Your task to perform on an android device: uninstall "Google Photos" Image 0: 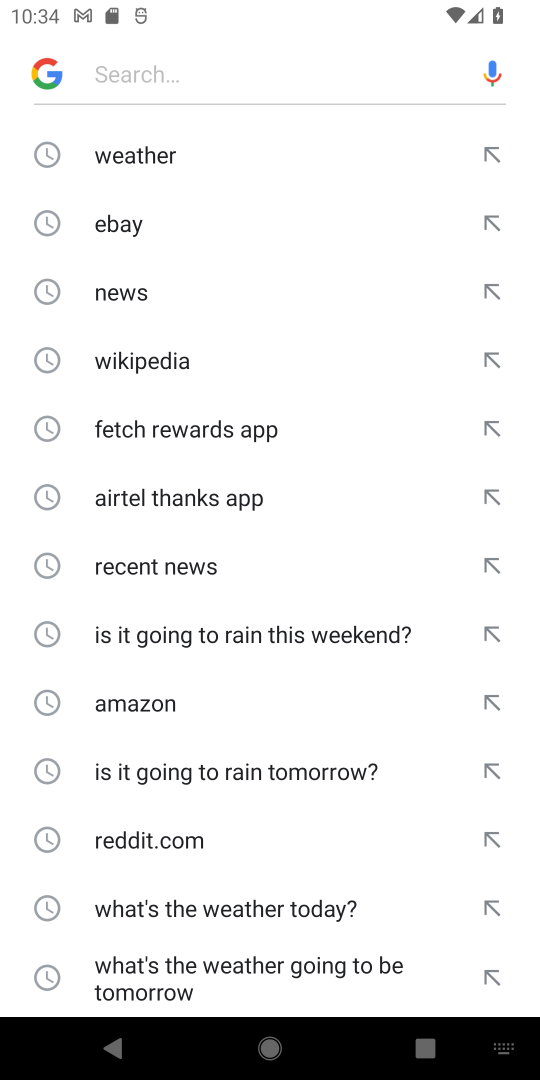
Step 0: press home button
Your task to perform on an android device: uninstall "Google Photos" Image 1: 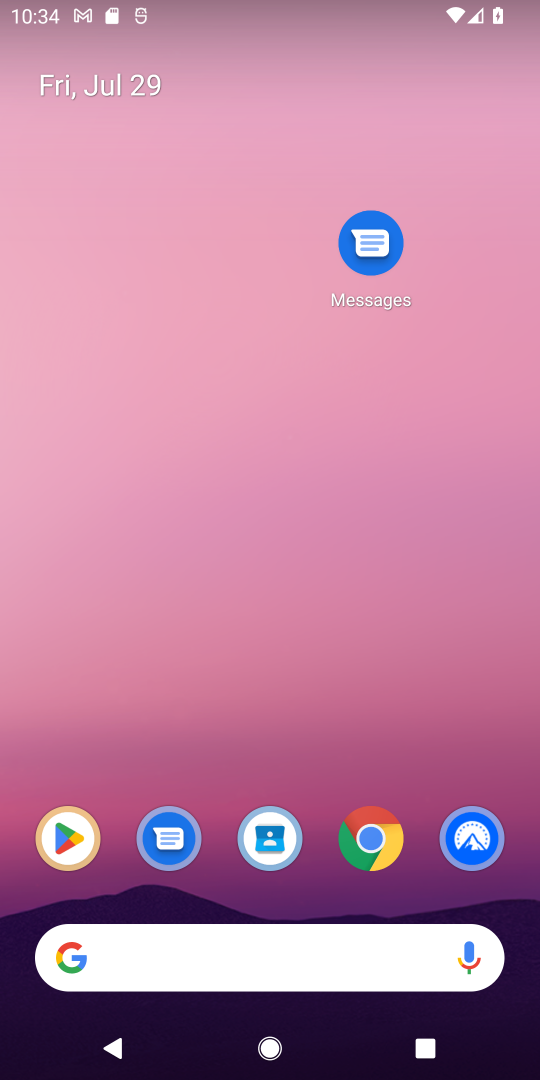
Step 1: click (73, 843)
Your task to perform on an android device: uninstall "Google Photos" Image 2: 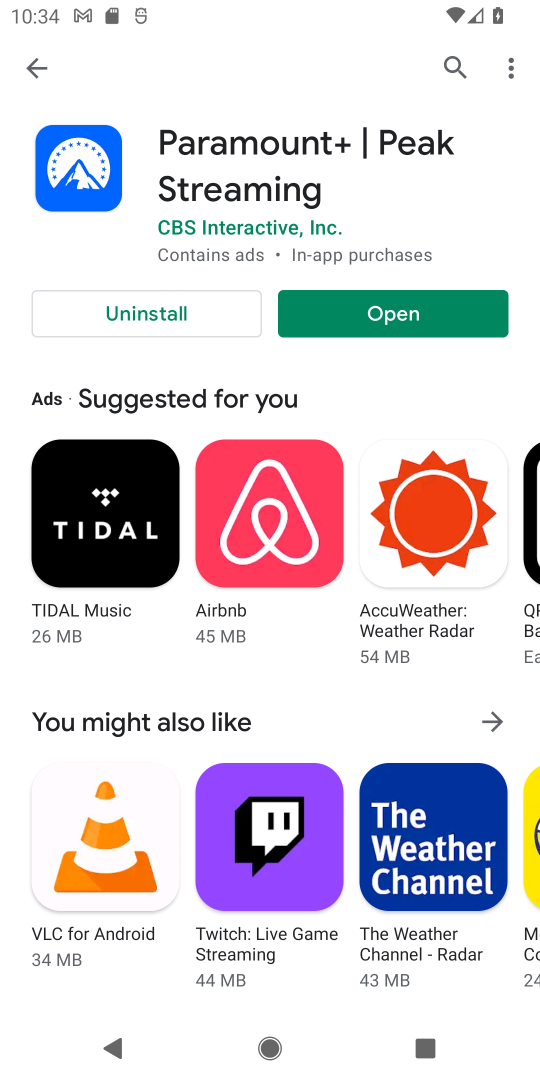
Step 2: click (28, 61)
Your task to perform on an android device: uninstall "Google Photos" Image 3: 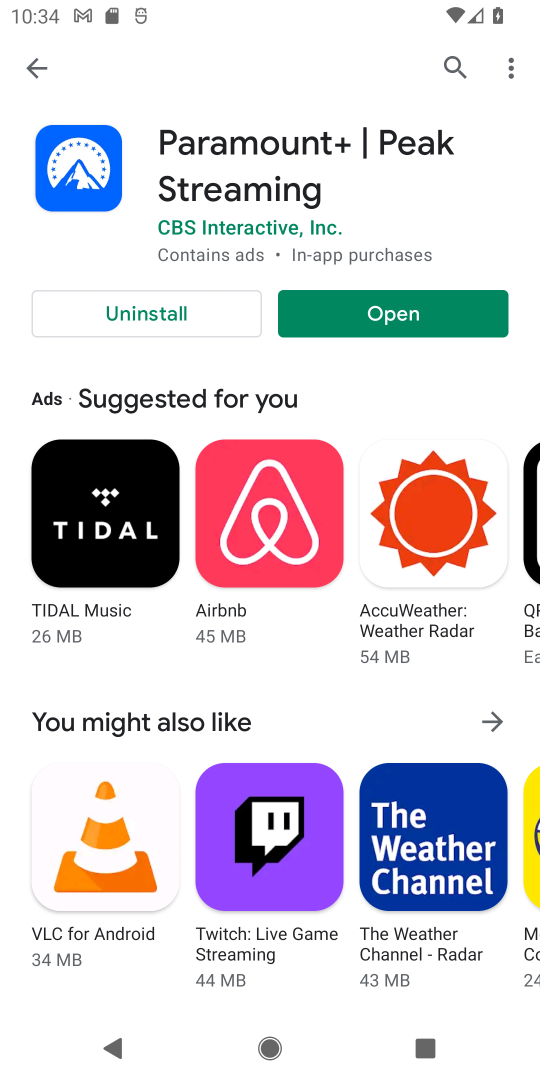
Step 3: click (50, 65)
Your task to perform on an android device: uninstall "Google Photos" Image 4: 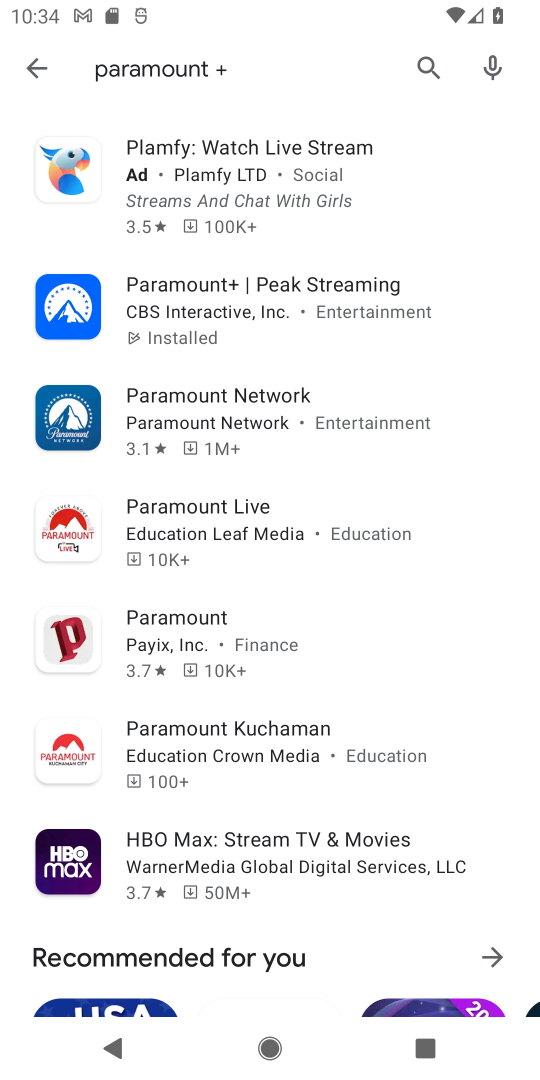
Step 4: click (228, 62)
Your task to perform on an android device: uninstall "Google Photos" Image 5: 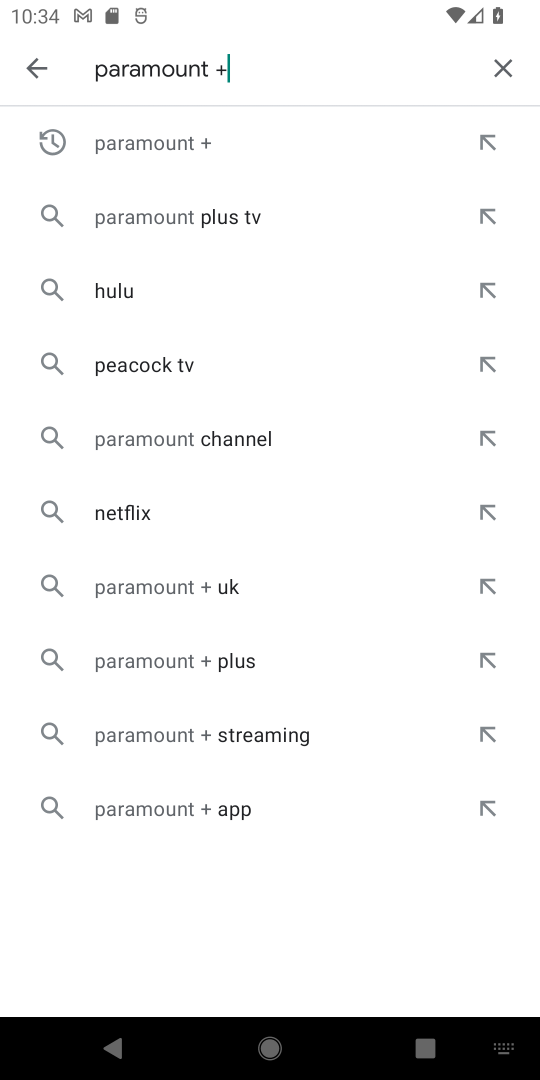
Step 5: click (494, 71)
Your task to perform on an android device: uninstall "Google Photos" Image 6: 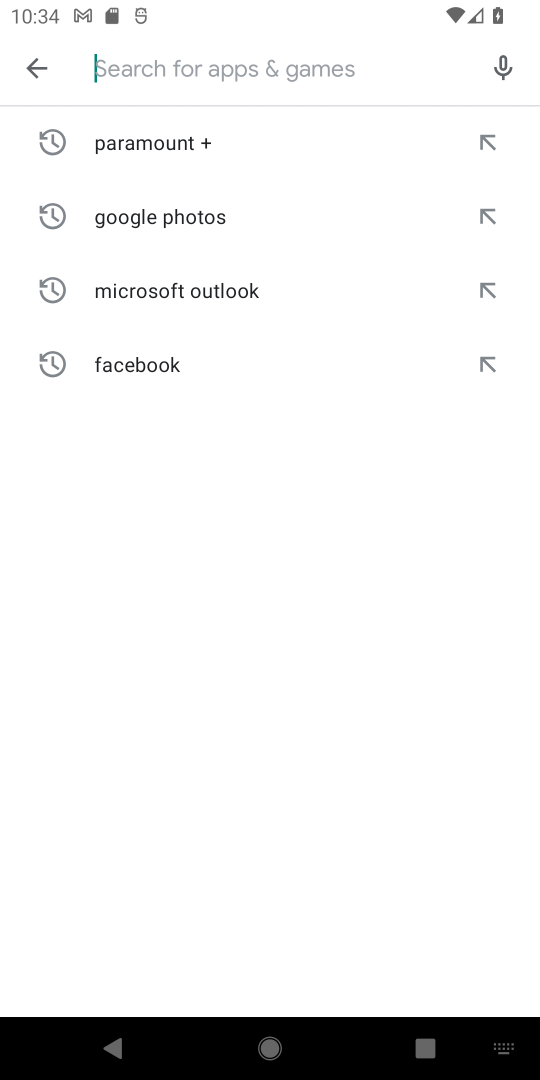
Step 6: type "photos"
Your task to perform on an android device: uninstall "Google Photos" Image 7: 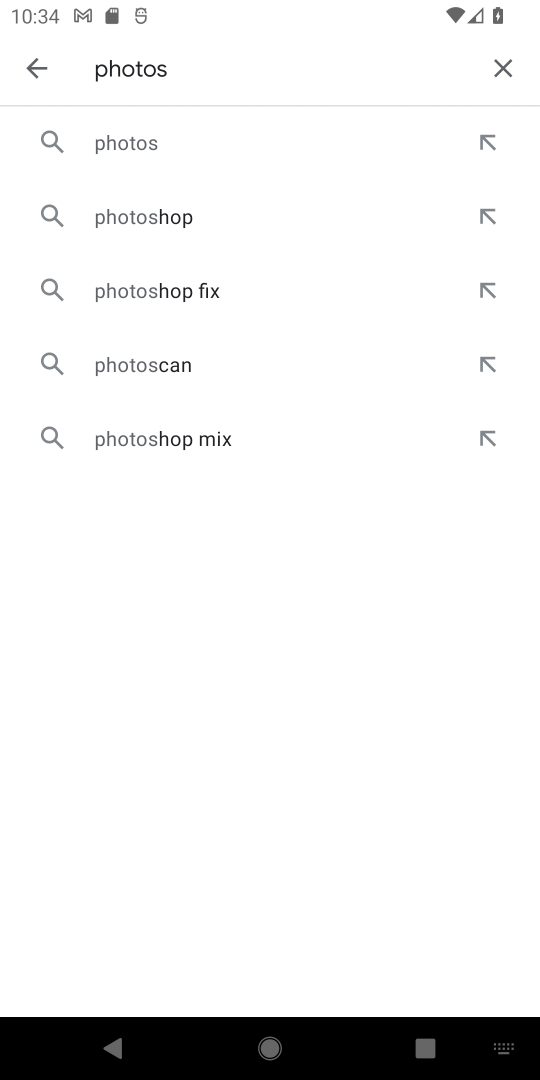
Step 7: click (199, 164)
Your task to perform on an android device: uninstall "Google Photos" Image 8: 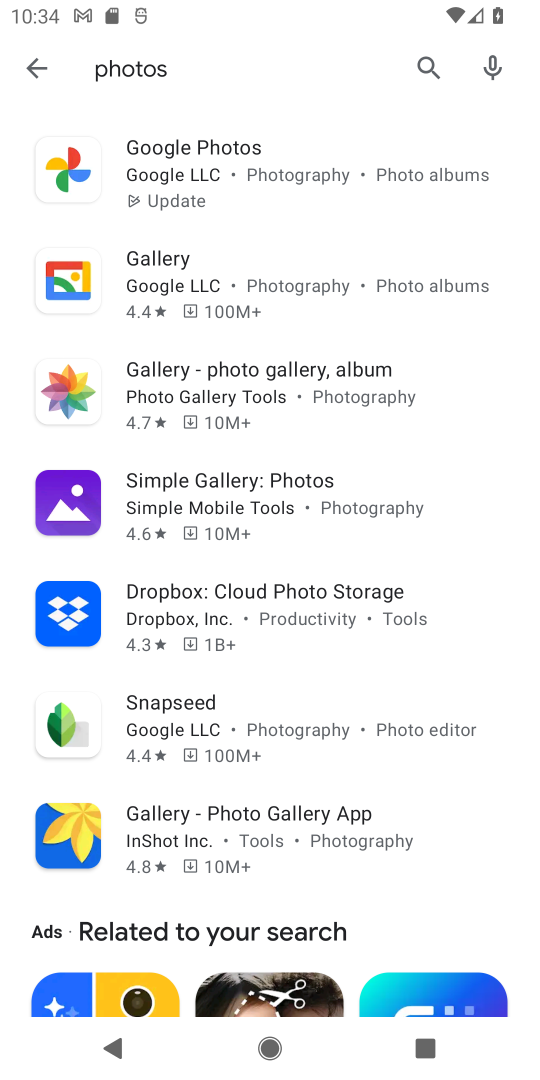
Step 8: click (255, 177)
Your task to perform on an android device: uninstall "Google Photos" Image 9: 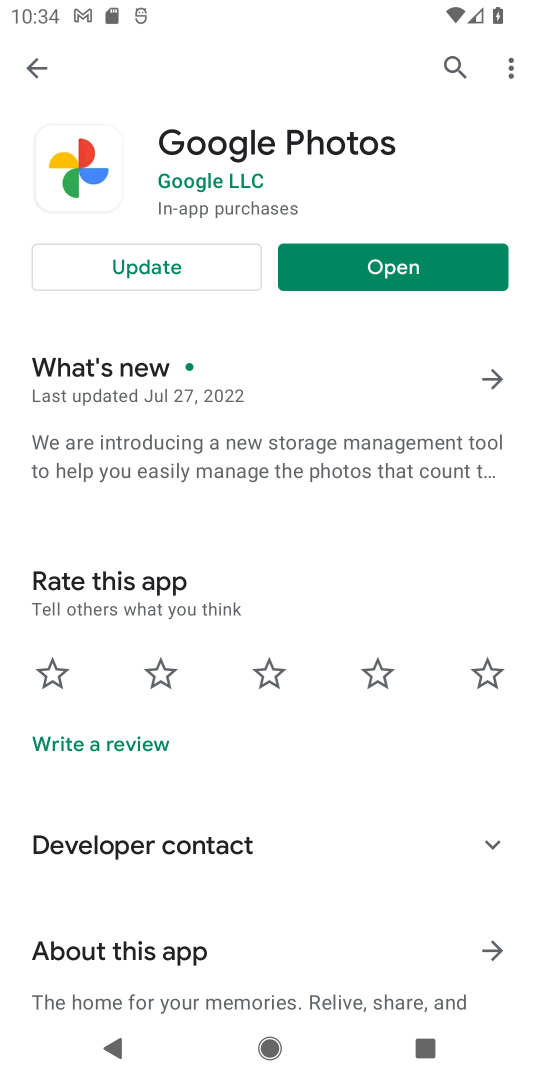
Step 9: task complete